Your task to perform on an android device: open device folders in google photos Image 0: 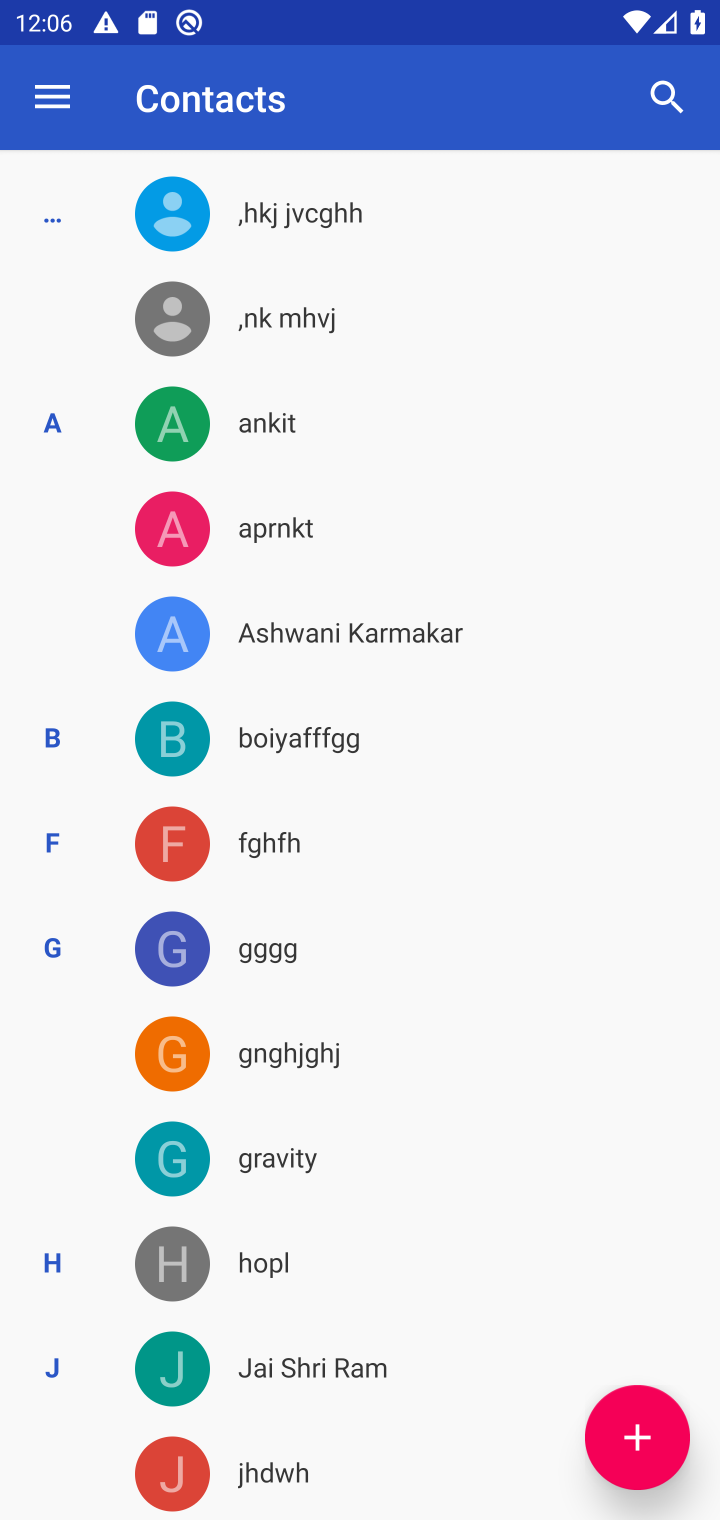
Step 0: press home button
Your task to perform on an android device: open device folders in google photos Image 1: 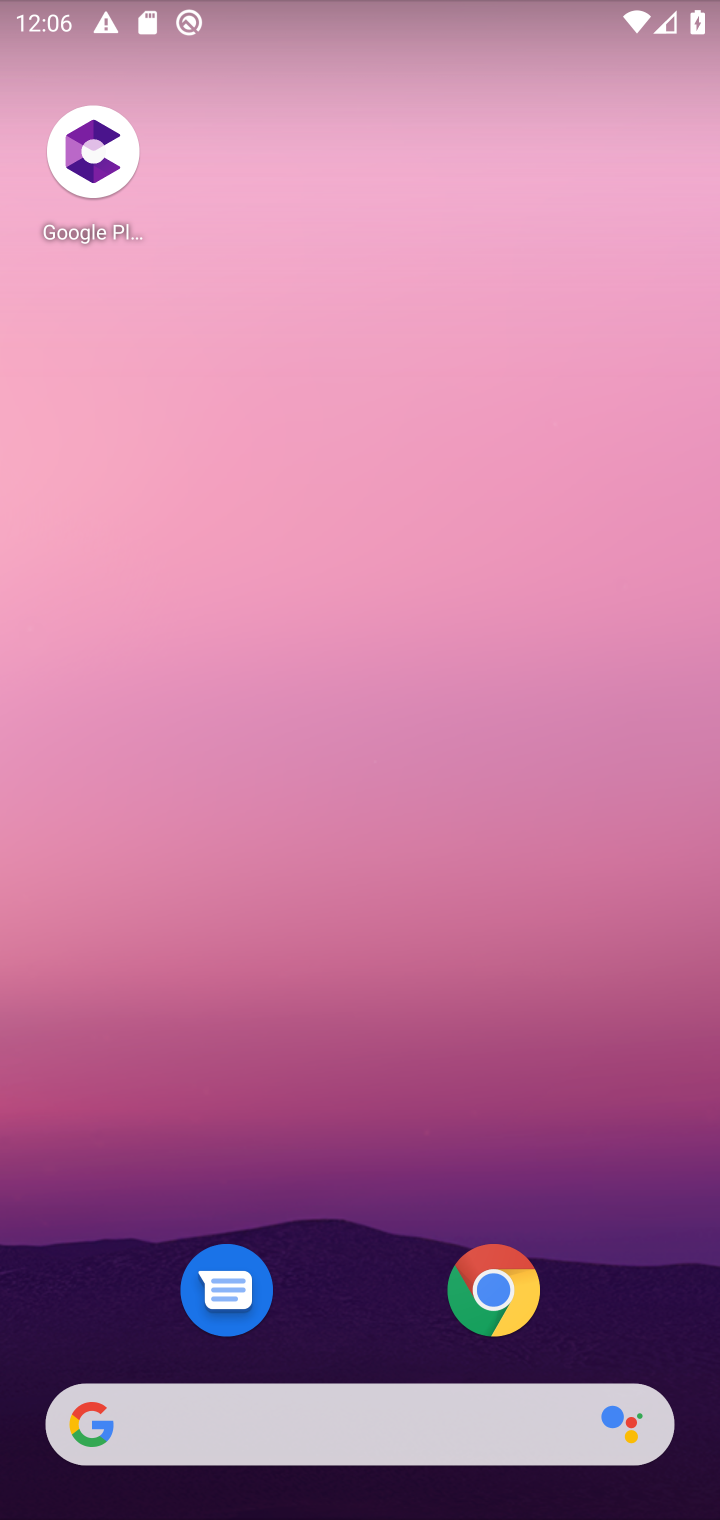
Step 1: drag from (338, 528) to (299, 12)
Your task to perform on an android device: open device folders in google photos Image 2: 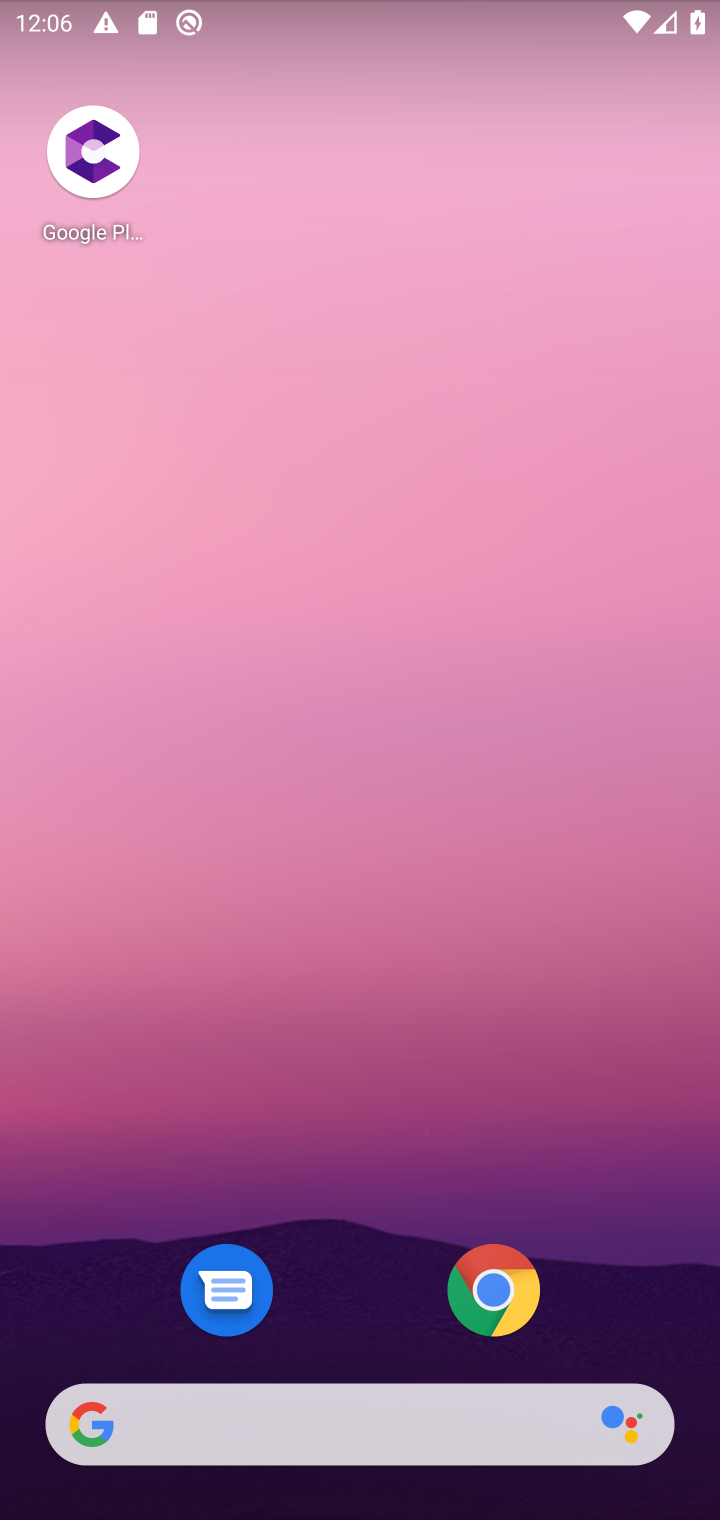
Step 2: drag from (354, 1288) to (414, 248)
Your task to perform on an android device: open device folders in google photos Image 3: 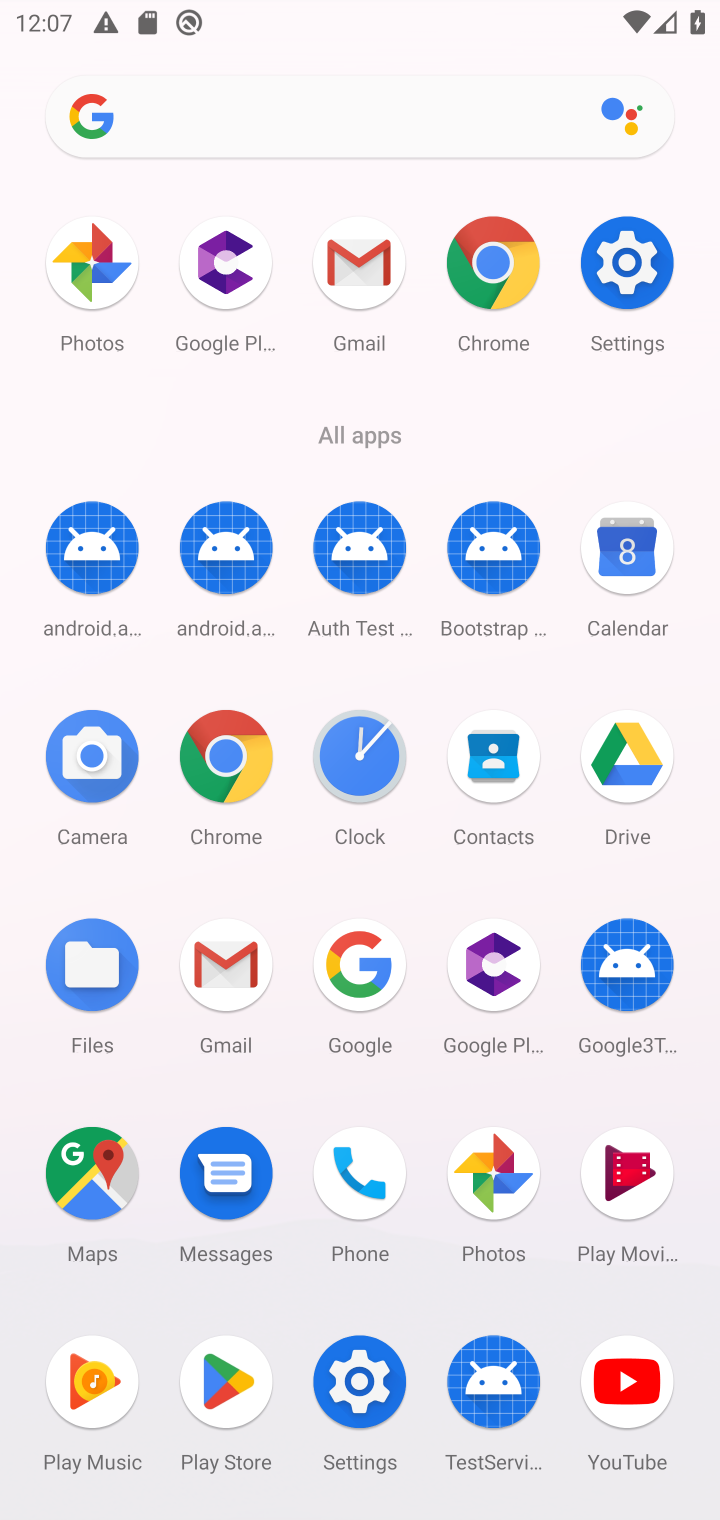
Step 3: click (508, 1208)
Your task to perform on an android device: open device folders in google photos Image 4: 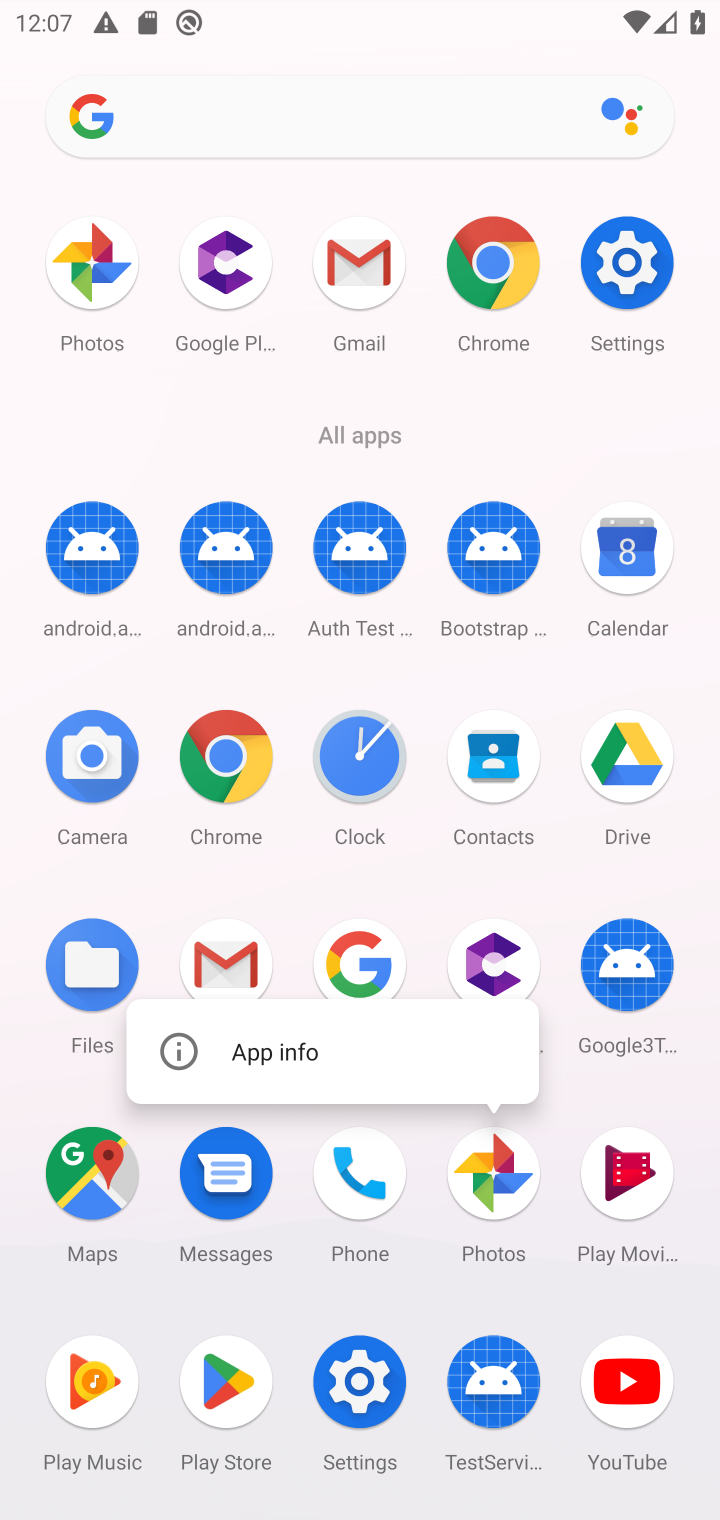
Step 4: click (508, 1208)
Your task to perform on an android device: open device folders in google photos Image 5: 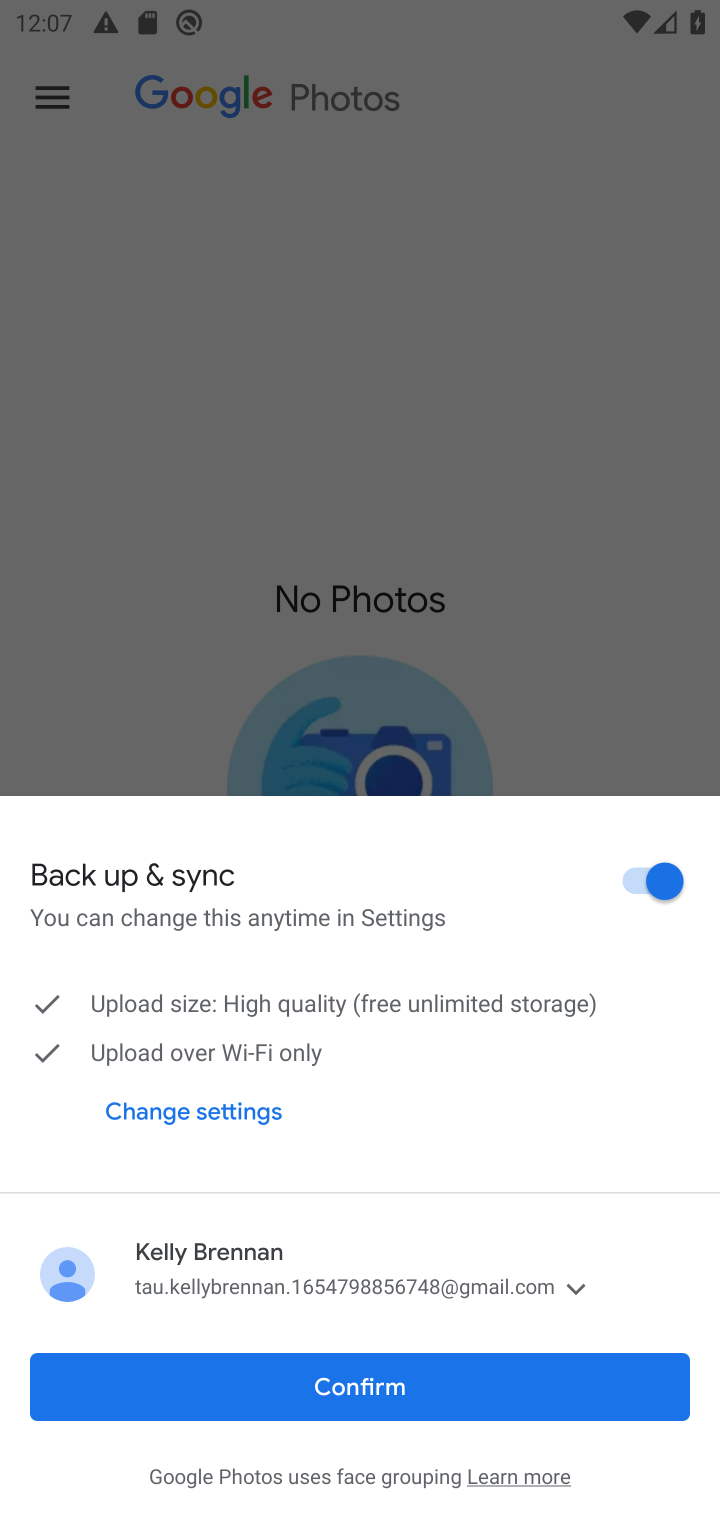
Step 5: click (431, 1402)
Your task to perform on an android device: open device folders in google photos Image 6: 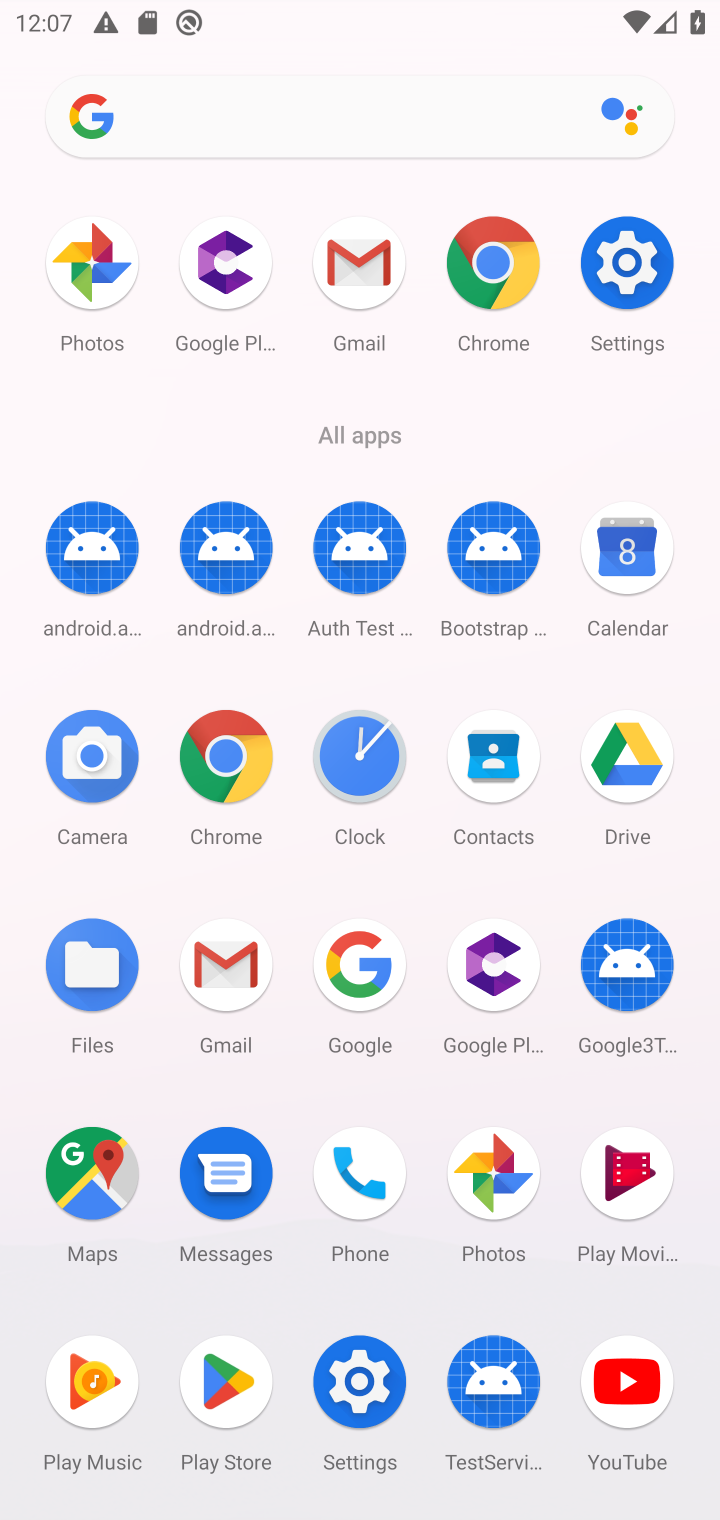
Step 6: click (489, 1182)
Your task to perform on an android device: open device folders in google photos Image 7: 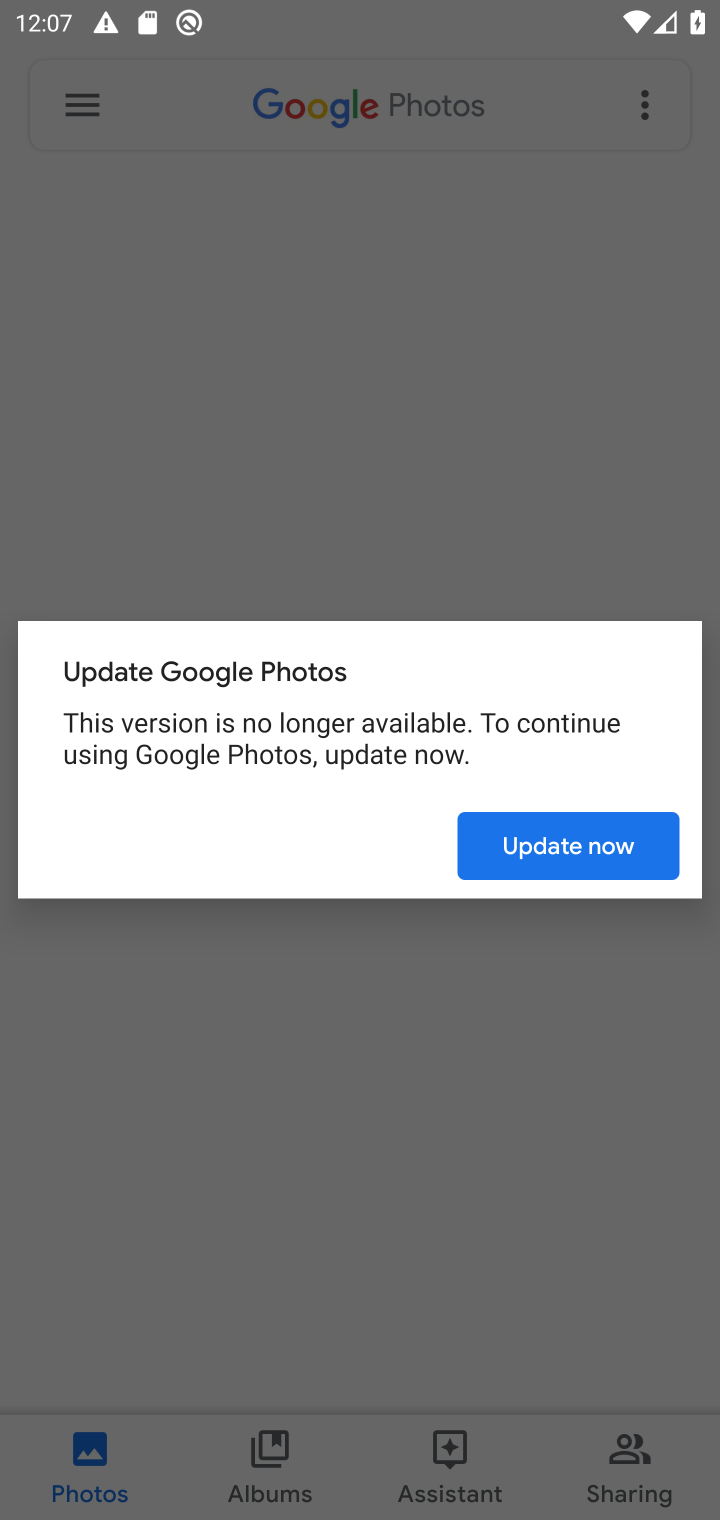
Step 7: click (602, 843)
Your task to perform on an android device: open device folders in google photos Image 8: 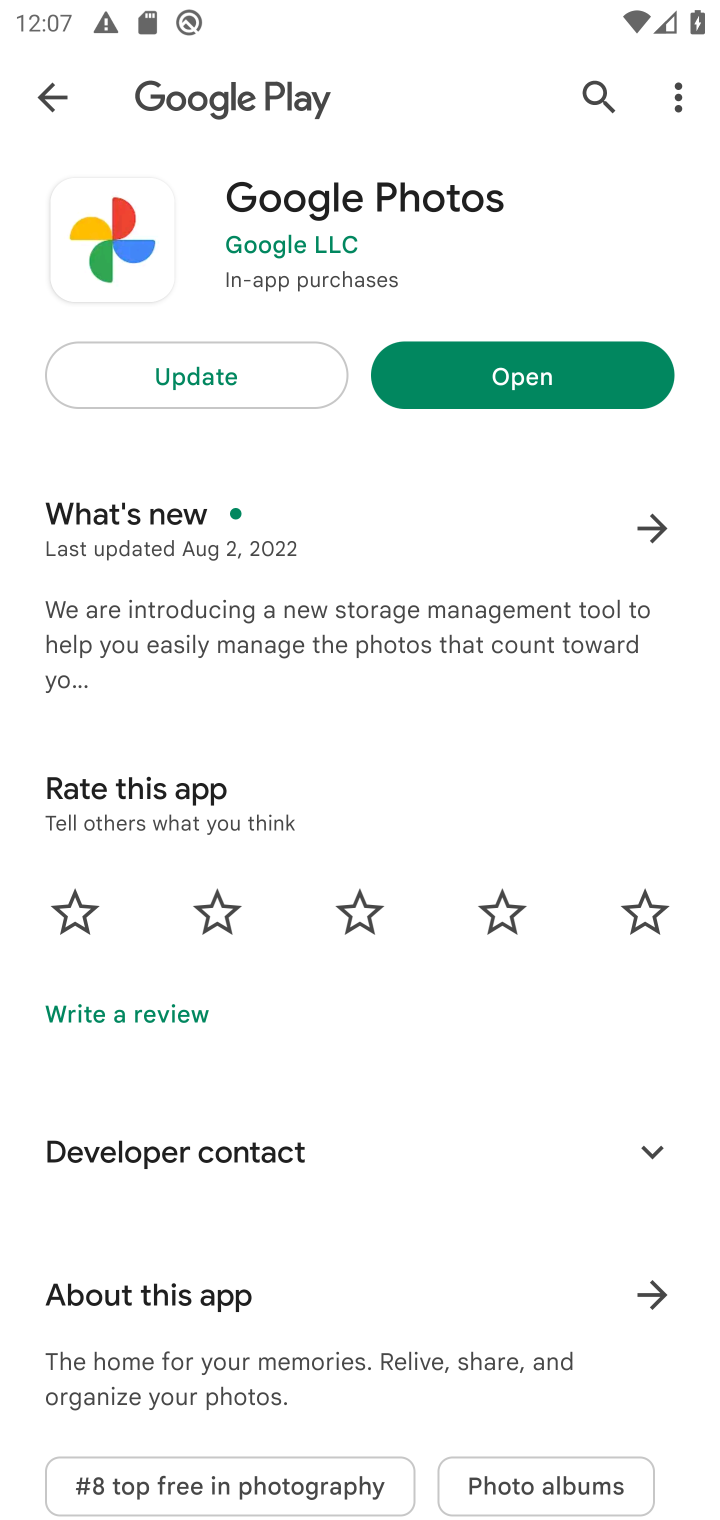
Step 8: click (518, 376)
Your task to perform on an android device: open device folders in google photos Image 9: 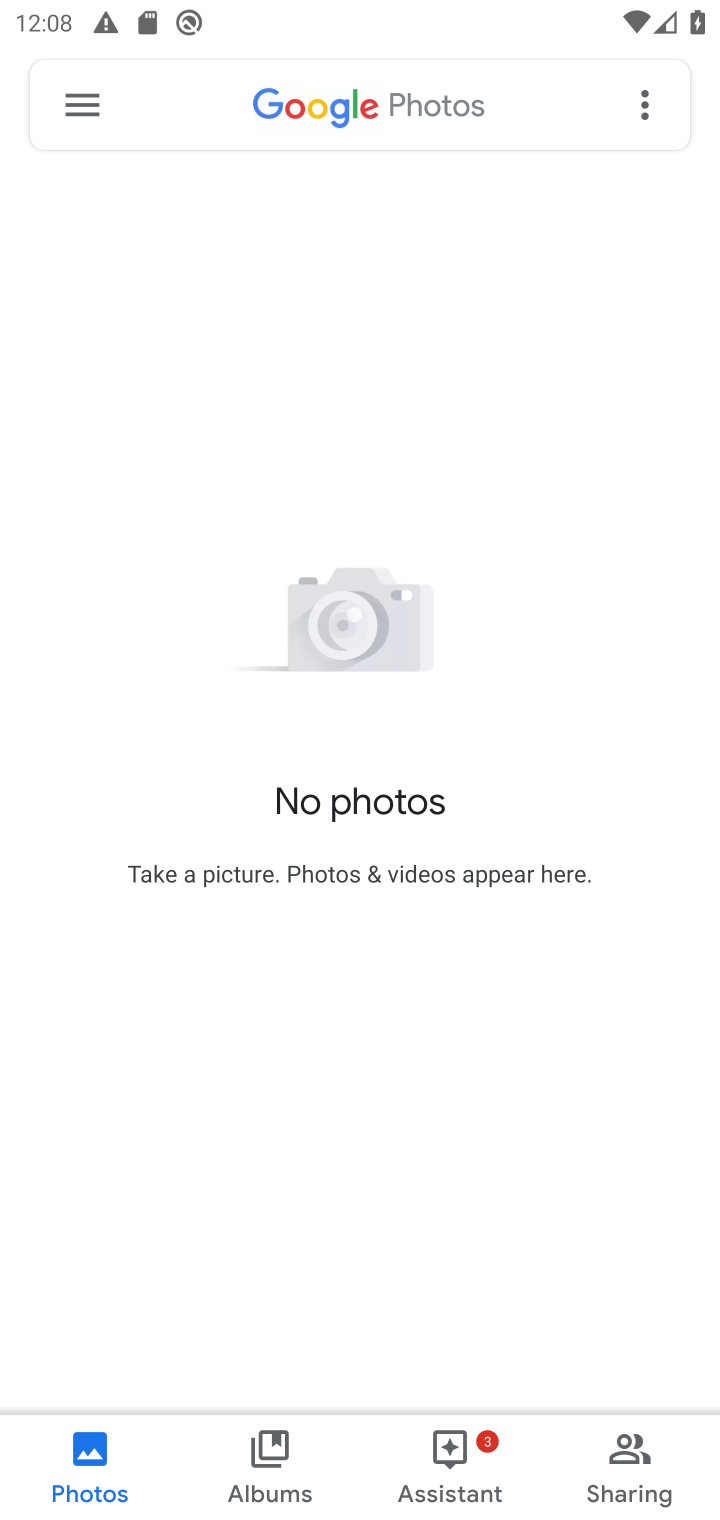
Step 9: click (77, 112)
Your task to perform on an android device: open device folders in google photos Image 10: 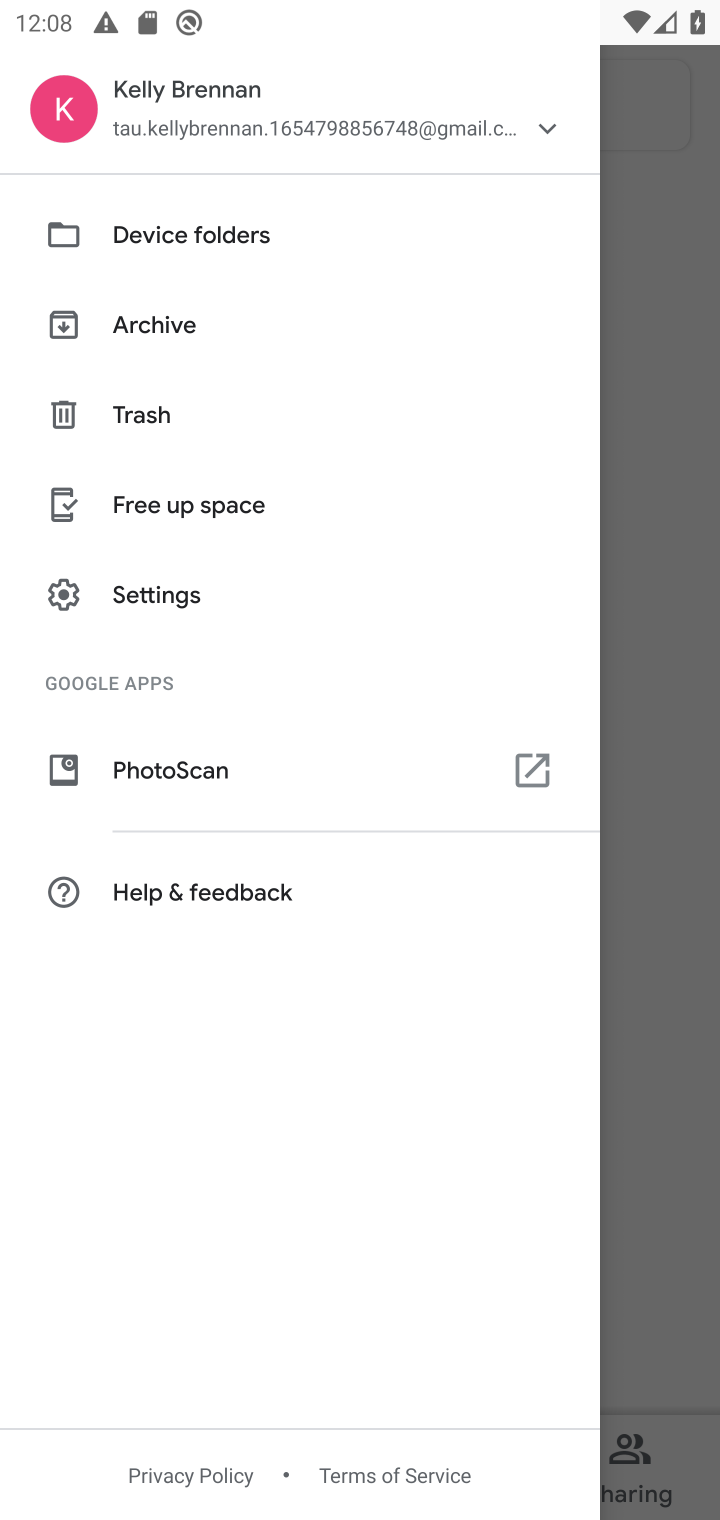
Step 10: click (181, 240)
Your task to perform on an android device: open device folders in google photos Image 11: 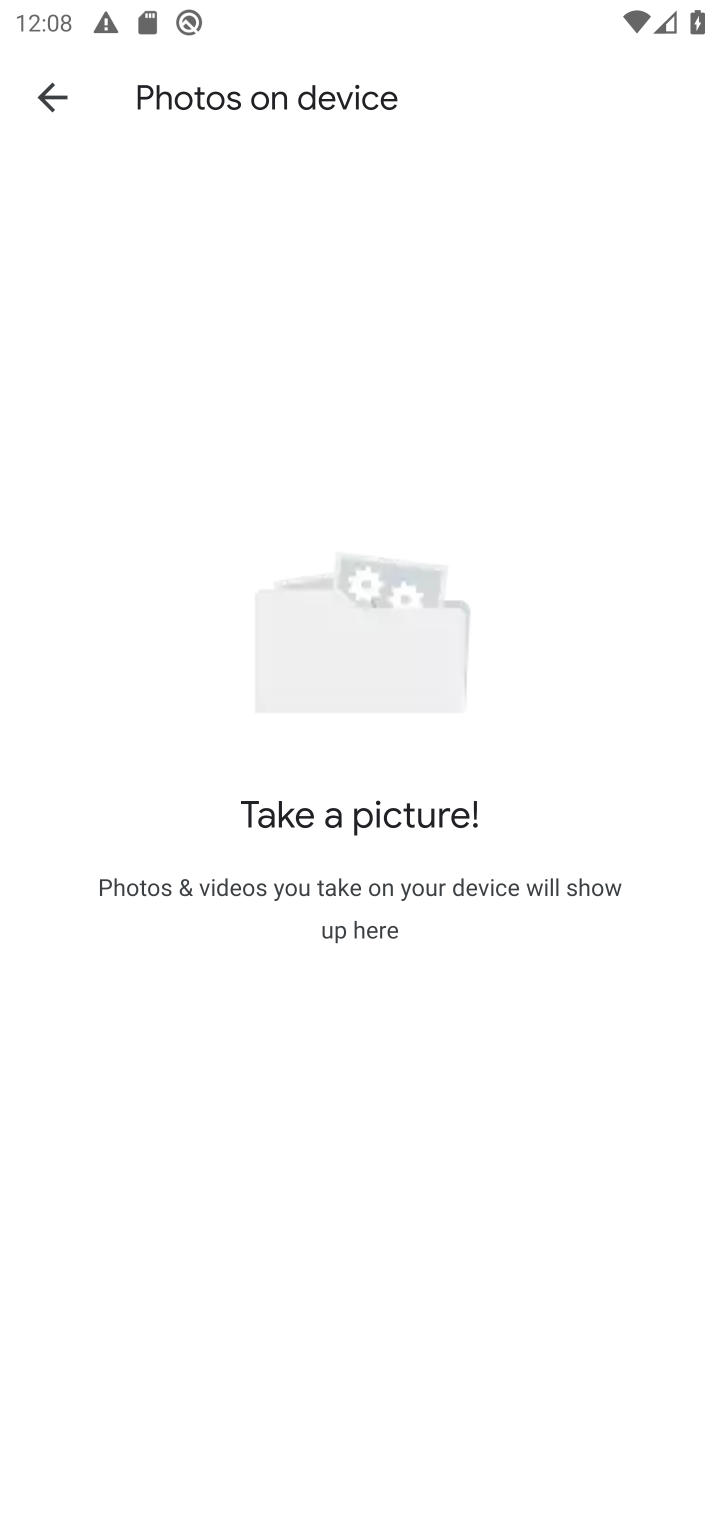
Step 11: task complete